Your task to perform on an android device: Go to privacy settings Image 0: 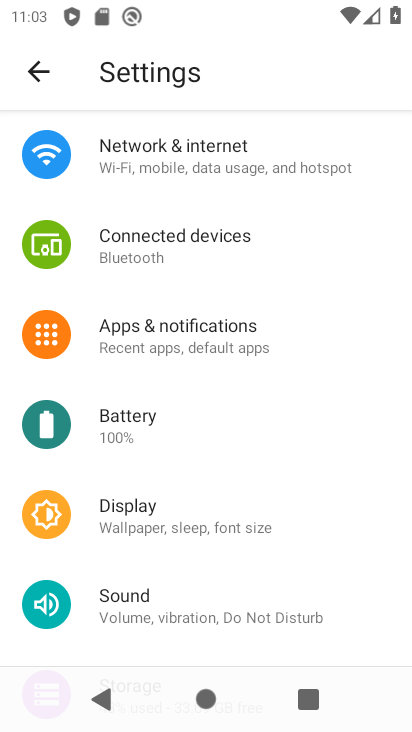
Step 0: press back button
Your task to perform on an android device: Go to privacy settings Image 1: 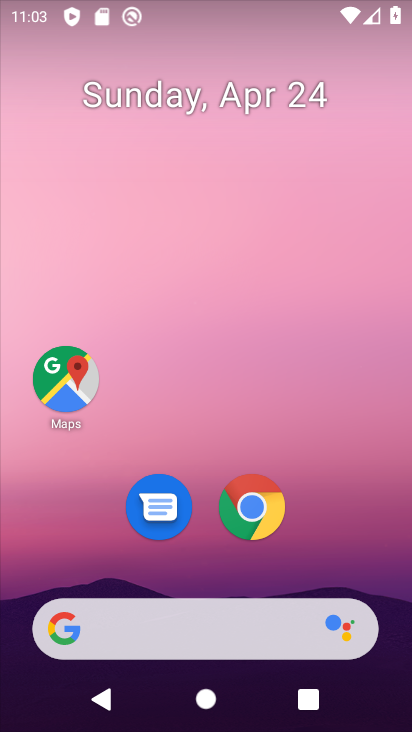
Step 1: drag from (332, 575) to (299, 8)
Your task to perform on an android device: Go to privacy settings Image 2: 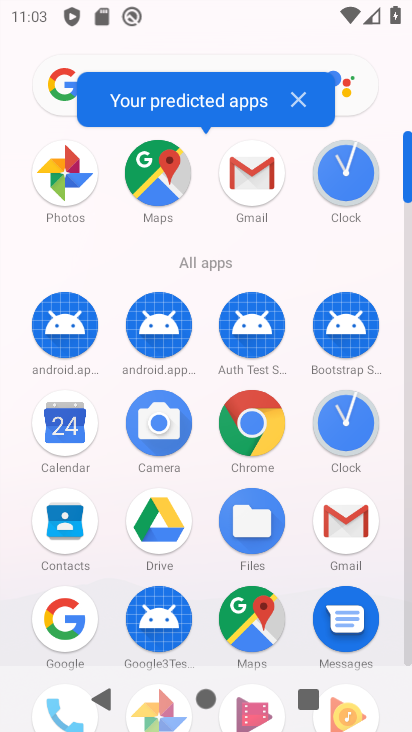
Step 2: drag from (13, 542) to (21, 214)
Your task to perform on an android device: Go to privacy settings Image 3: 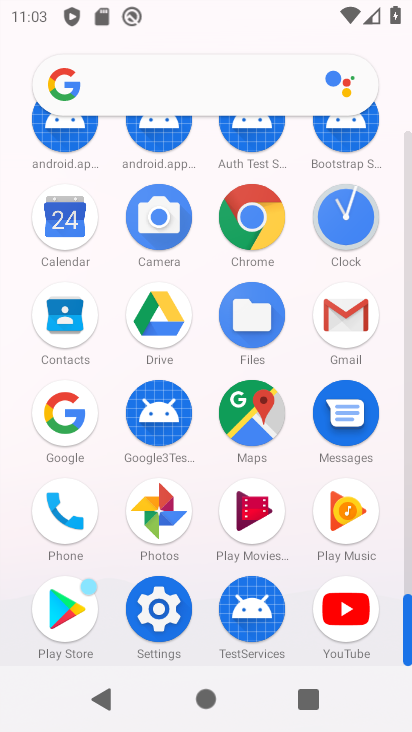
Step 3: click (248, 207)
Your task to perform on an android device: Go to privacy settings Image 4: 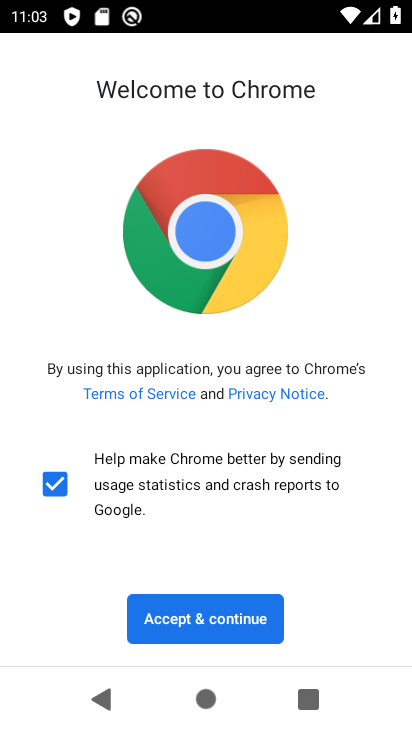
Step 4: click (211, 626)
Your task to perform on an android device: Go to privacy settings Image 5: 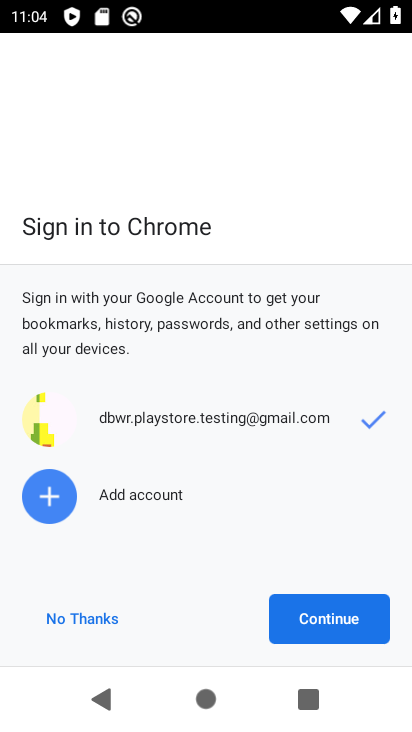
Step 5: click (341, 626)
Your task to perform on an android device: Go to privacy settings Image 6: 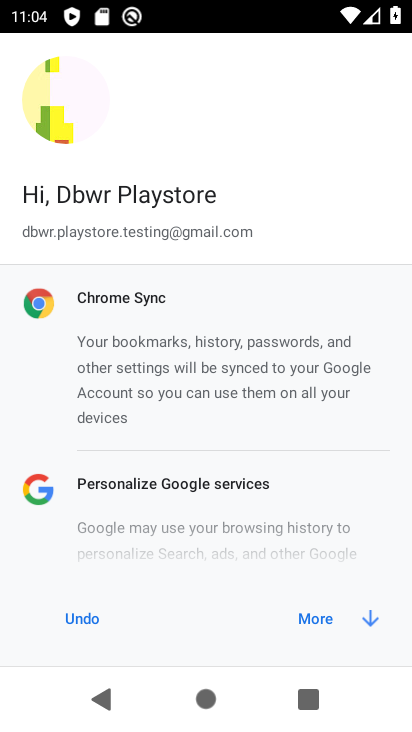
Step 6: click (328, 618)
Your task to perform on an android device: Go to privacy settings Image 7: 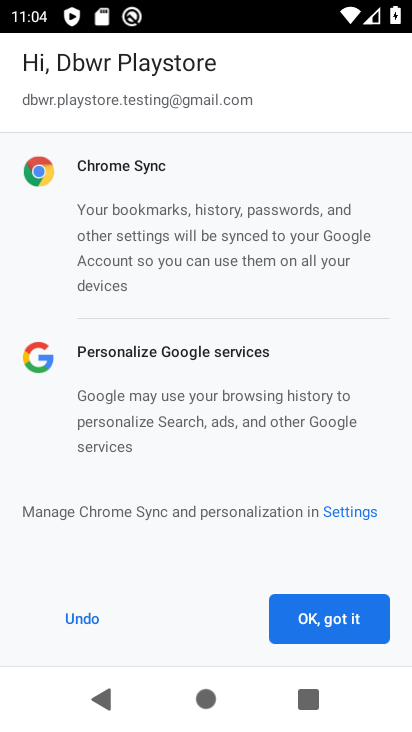
Step 7: click (328, 618)
Your task to perform on an android device: Go to privacy settings Image 8: 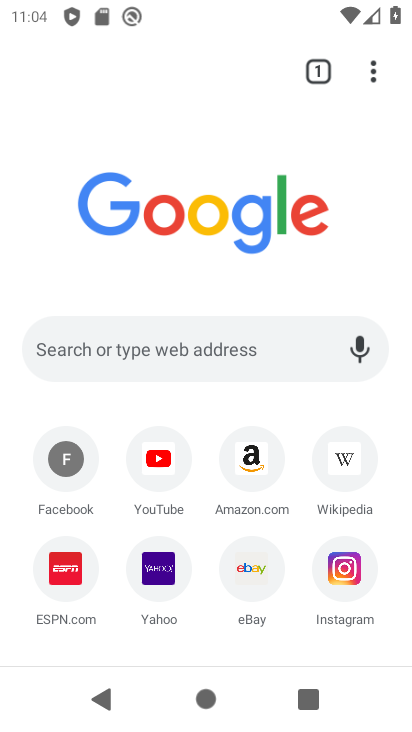
Step 8: drag from (372, 70) to (133, 491)
Your task to perform on an android device: Go to privacy settings Image 9: 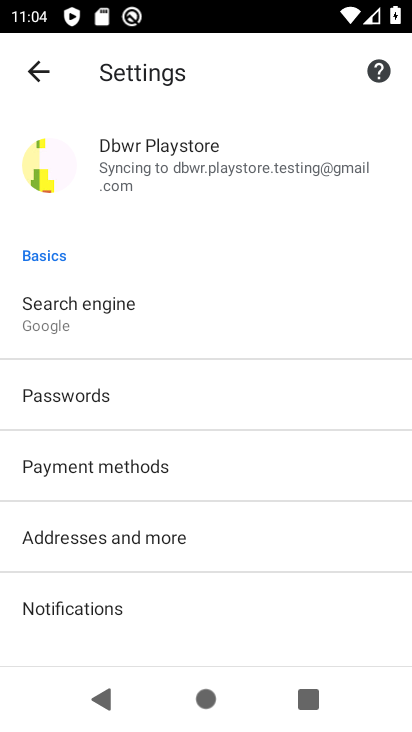
Step 9: drag from (216, 538) to (231, 127)
Your task to perform on an android device: Go to privacy settings Image 10: 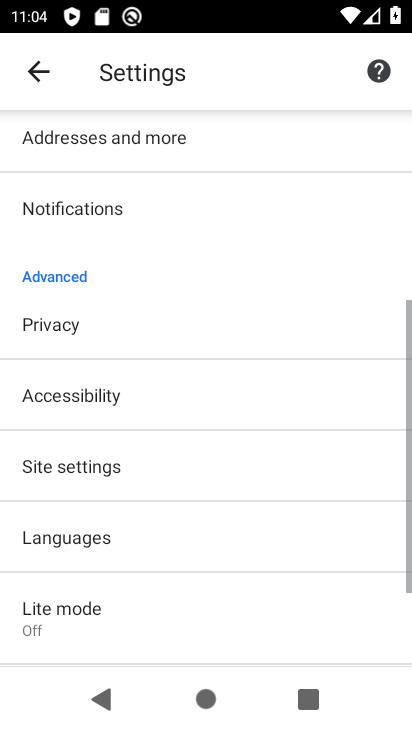
Step 10: drag from (210, 522) to (244, 201)
Your task to perform on an android device: Go to privacy settings Image 11: 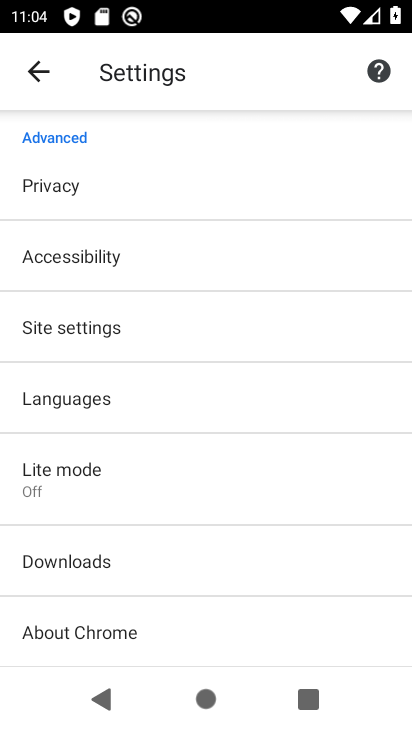
Step 11: drag from (152, 585) to (163, 481)
Your task to perform on an android device: Go to privacy settings Image 12: 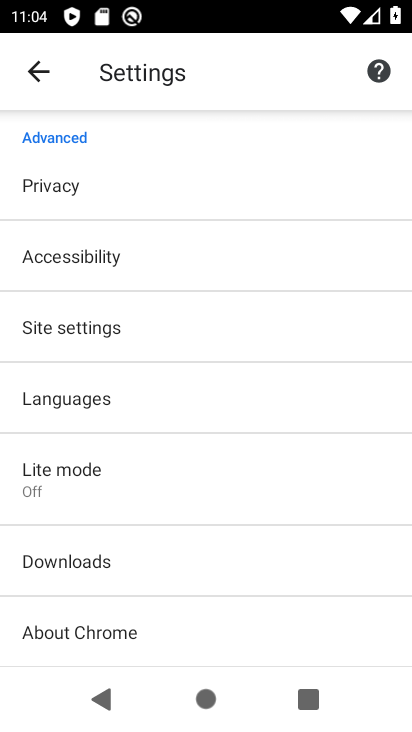
Step 12: click (92, 186)
Your task to perform on an android device: Go to privacy settings Image 13: 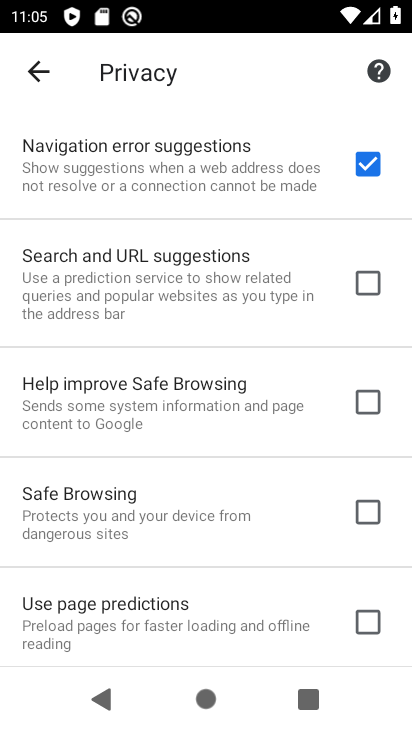
Step 13: task complete